Your task to perform on an android device: add a contact in the contacts app Image 0: 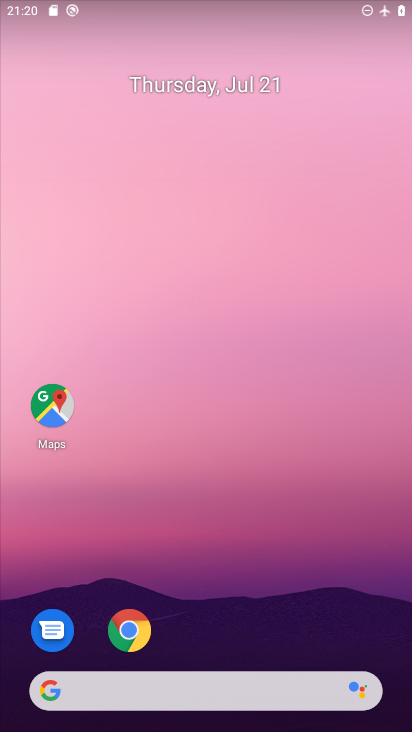
Step 0: drag from (338, 553) to (166, 1)
Your task to perform on an android device: add a contact in the contacts app Image 1: 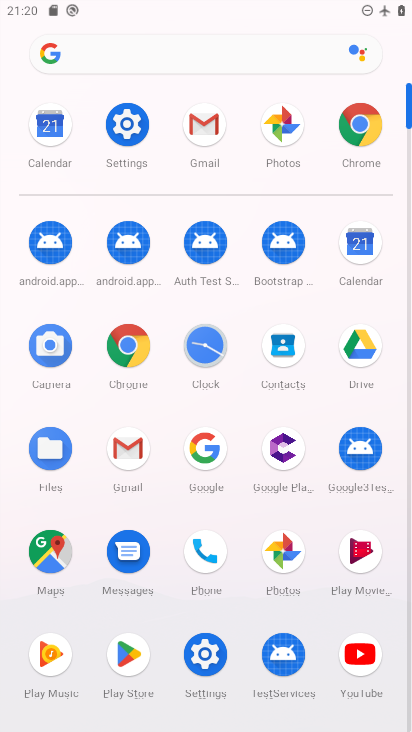
Step 1: click (284, 361)
Your task to perform on an android device: add a contact in the contacts app Image 2: 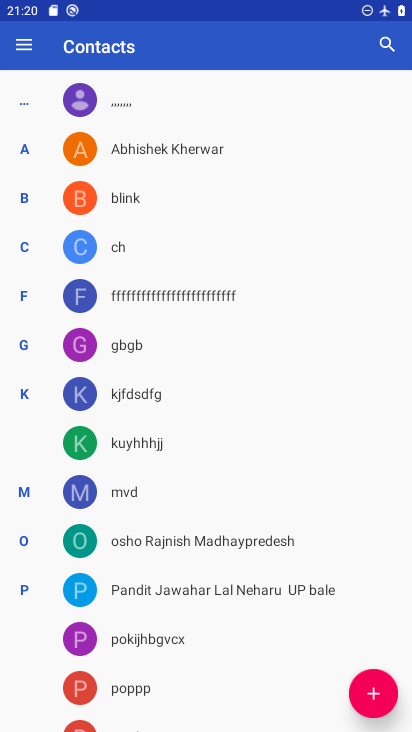
Step 2: click (376, 686)
Your task to perform on an android device: add a contact in the contacts app Image 3: 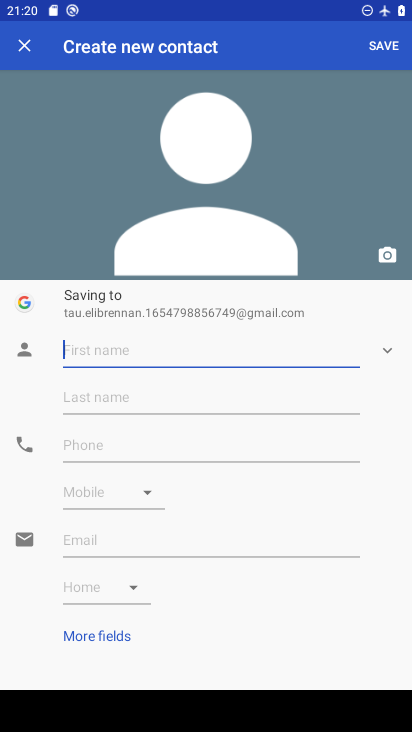
Step 3: type "narayan hari hari"
Your task to perform on an android device: add a contact in the contacts app Image 4: 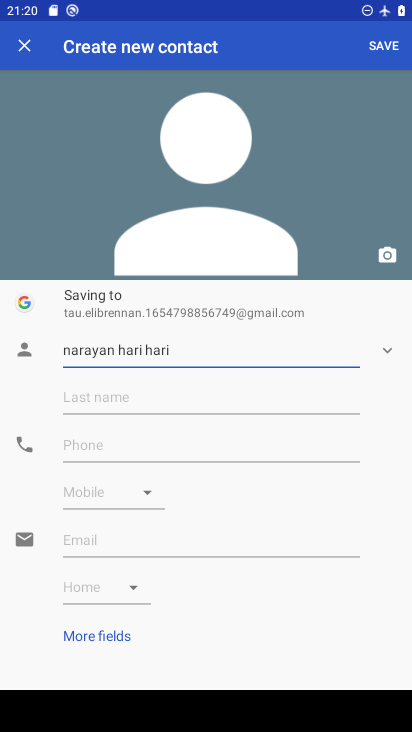
Step 4: click (379, 42)
Your task to perform on an android device: add a contact in the contacts app Image 5: 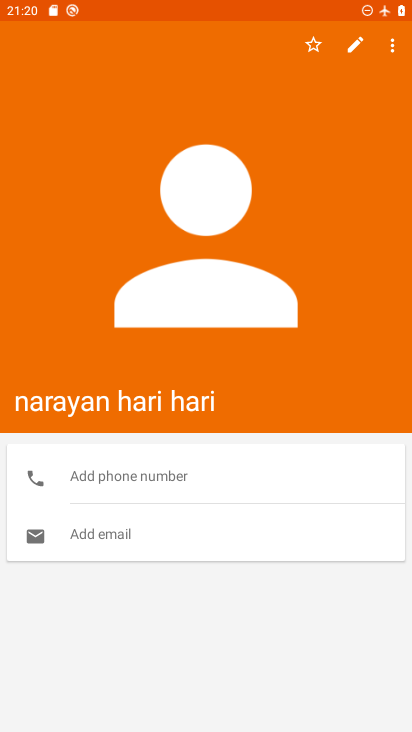
Step 5: task complete